Your task to perform on an android device: toggle location history Image 0: 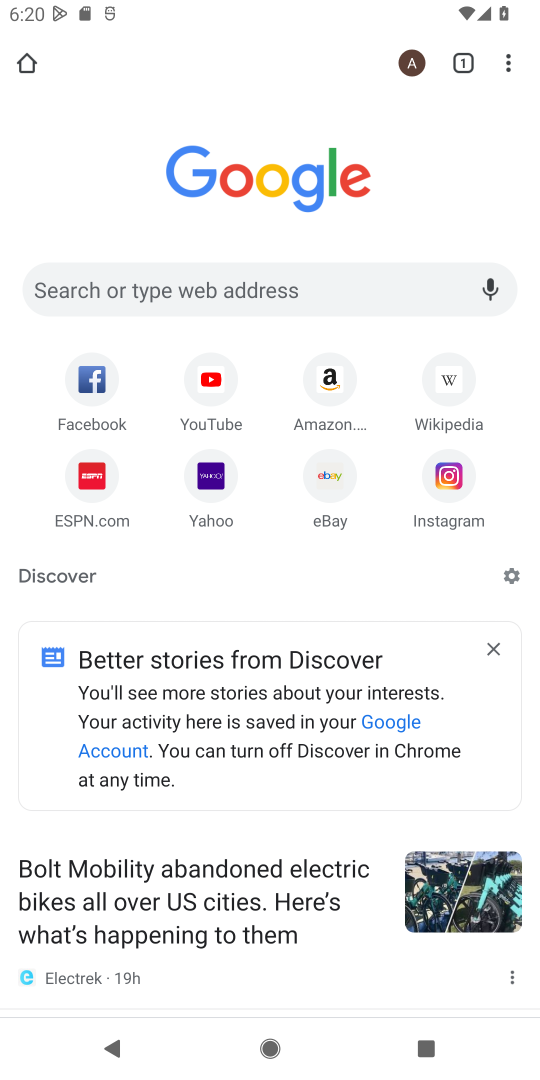
Step 0: task complete